Your task to perform on an android device: refresh tabs in the chrome app Image 0: 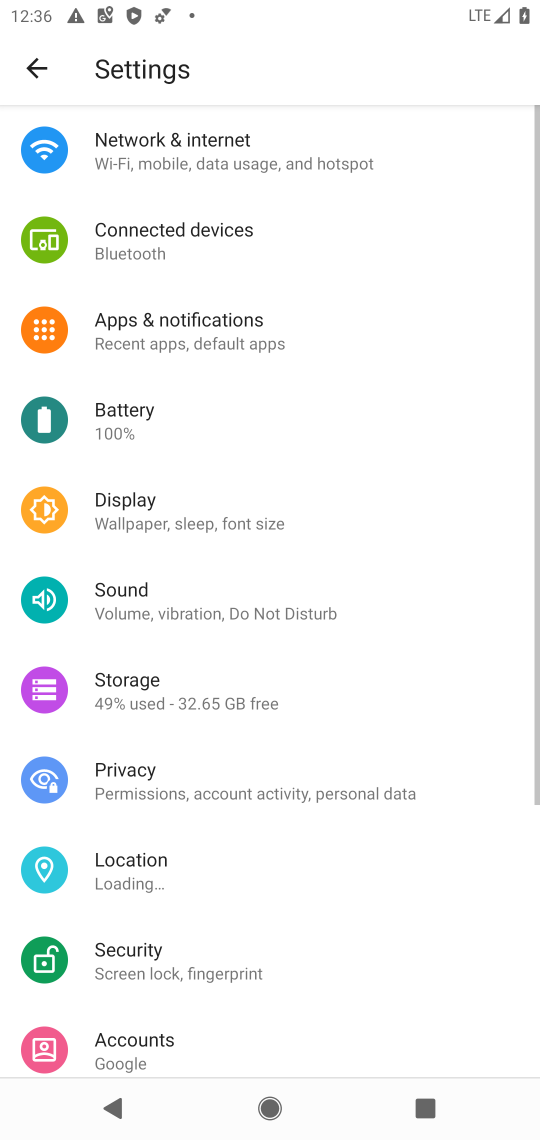
Step 0: press home button
Your task to perform on an android device: refresh tabs in the chrome app Image 1: 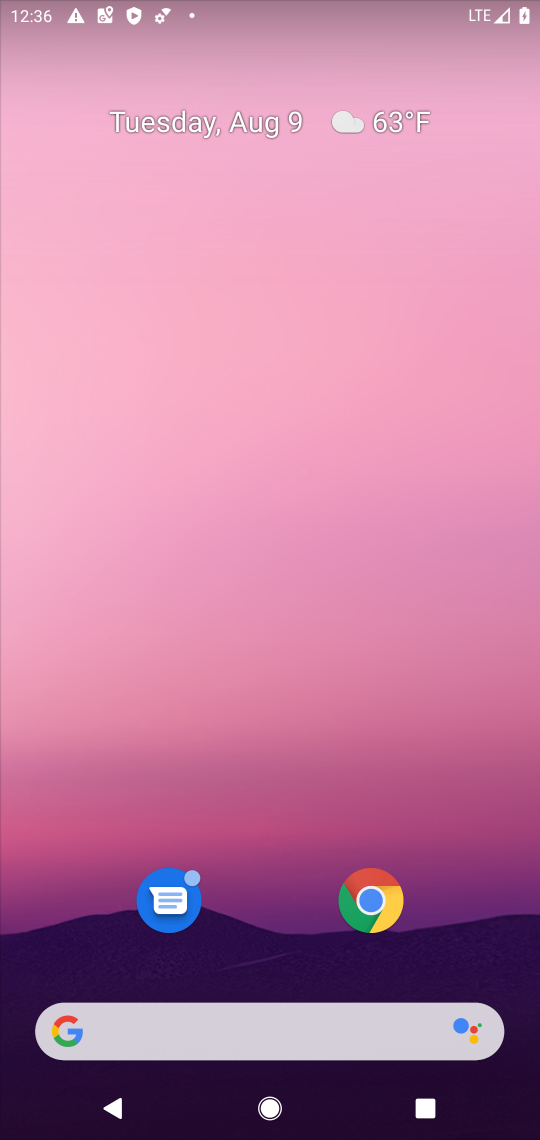
Step 1: drag from (252, 868) to (371, 127)
Your task to perform on an android device: refresh tabs in the chrome app Image 2: 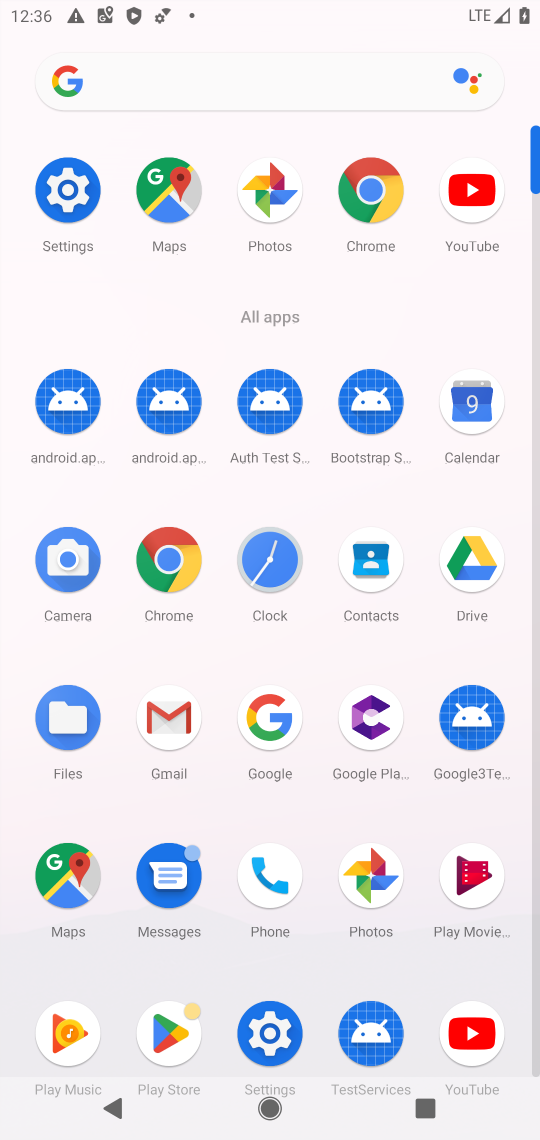
Step 2: click (161, 562)
Your task to perform on an android device: refresh tabs in the chrome app Image 3: 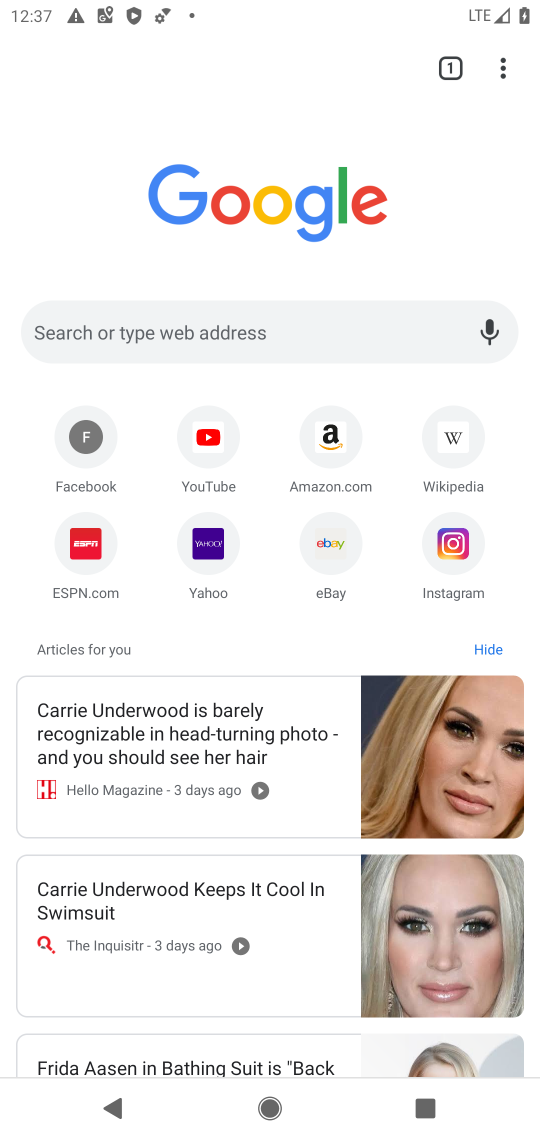
Step 3: click (501, 70)
Your task to perform on an android device: refresh tabs in the chrome app Image 4: 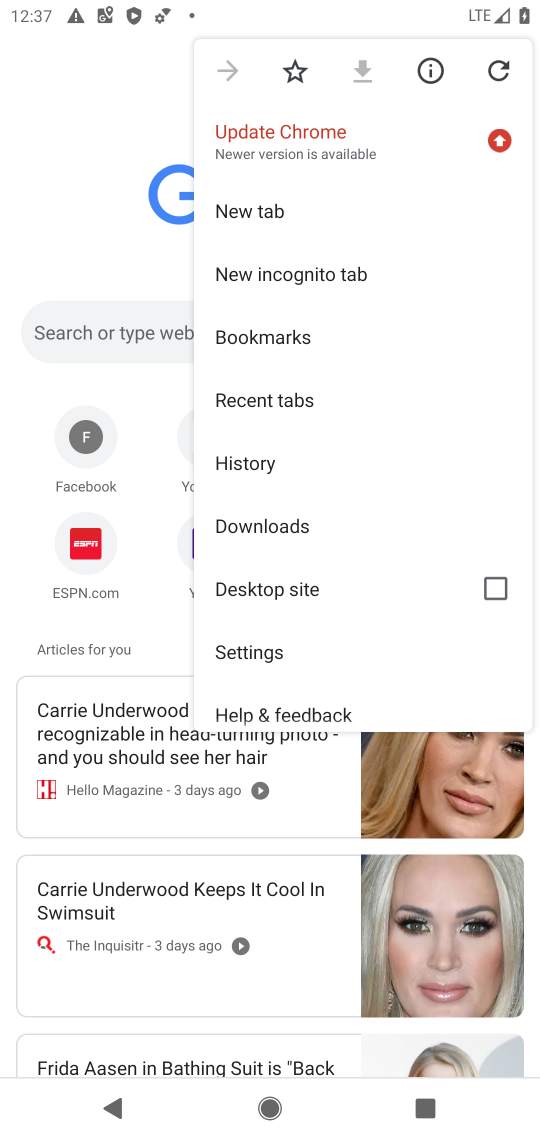
Step 4: click (496, 66)
Your task to perform on an android device: refresh tabs in the chrome app Image 5: 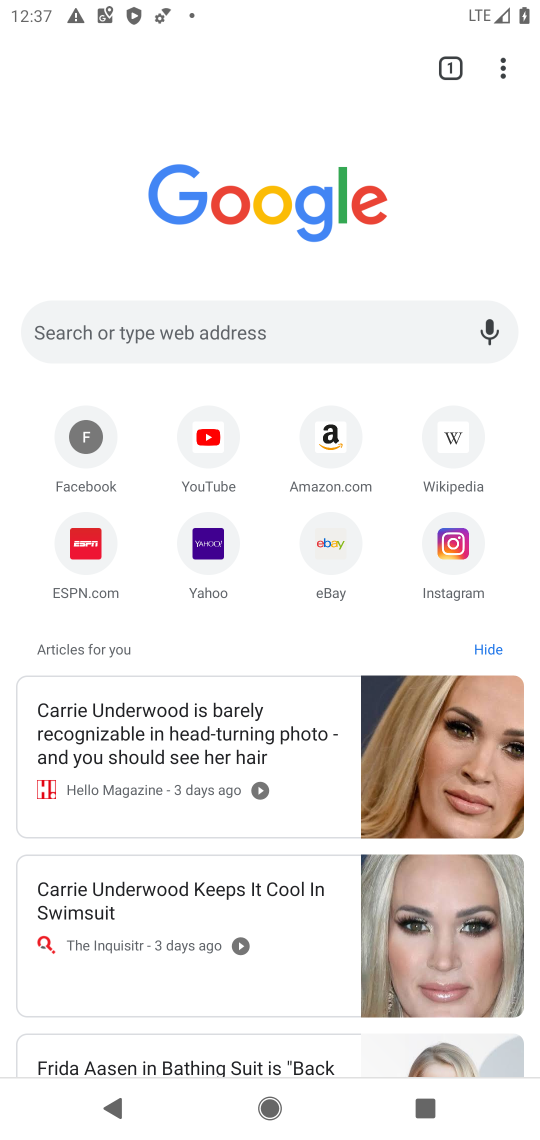
Step 5: task complete